Your task to perform on an android device: Do I have any events this weekend? Image 0: 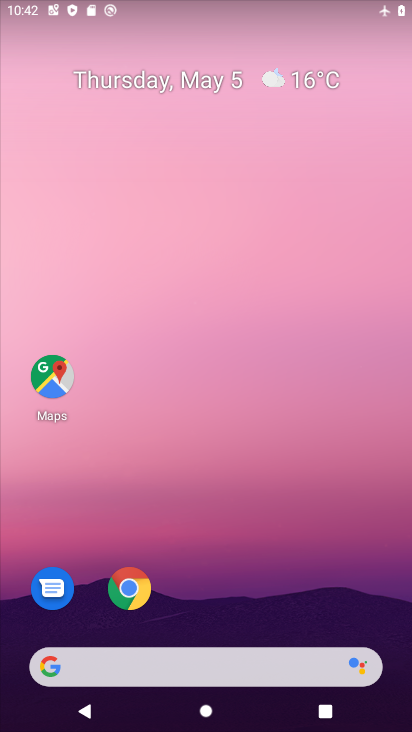
Step 0: drag from (221, 616) to (186, 230)
Your task to perform on an android device: Do I have any events this weekend? Image 1: 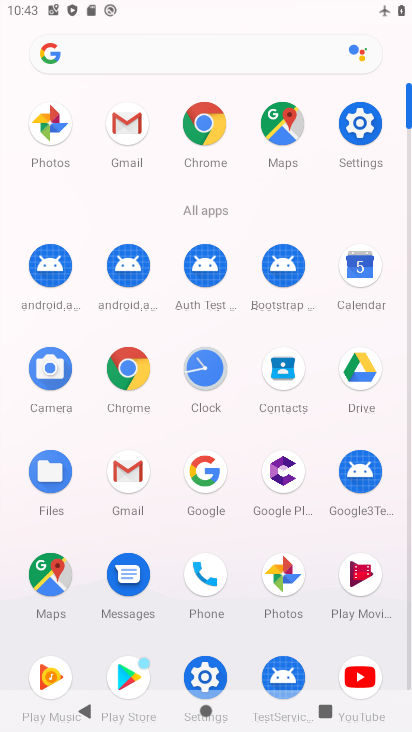
Step 1: click (357, 273)
Your task to perform on an android device: Do I have any events this weekend? Image 2: 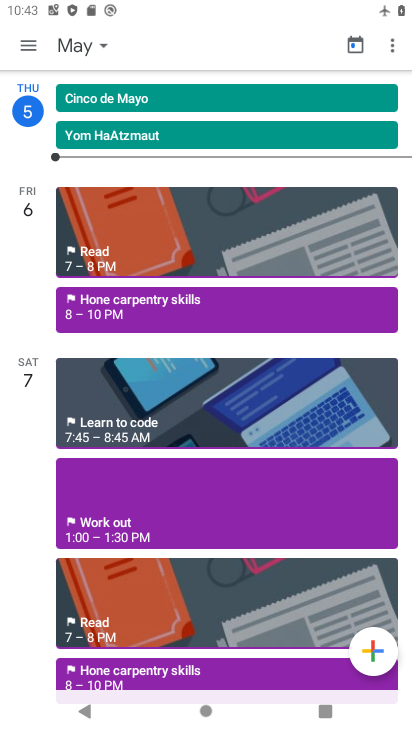
Step 2: click (25, 38)
Your task to perform on an android device: Do I have any events this weekend? Image 3: 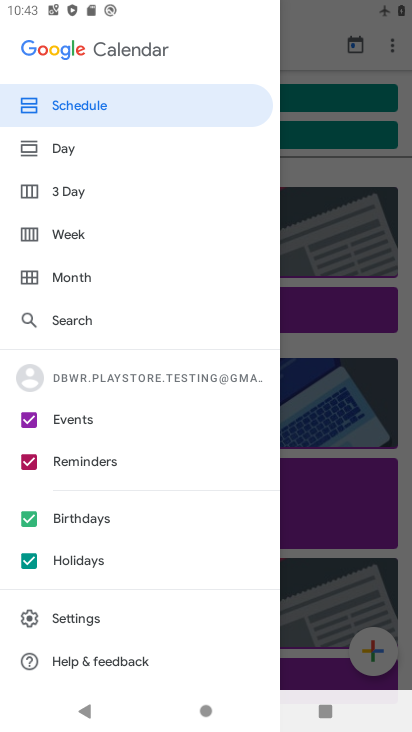
Step 3: click (33, 563)
Your task to perform on an android device: Do I have any events this weekend? Image 4: 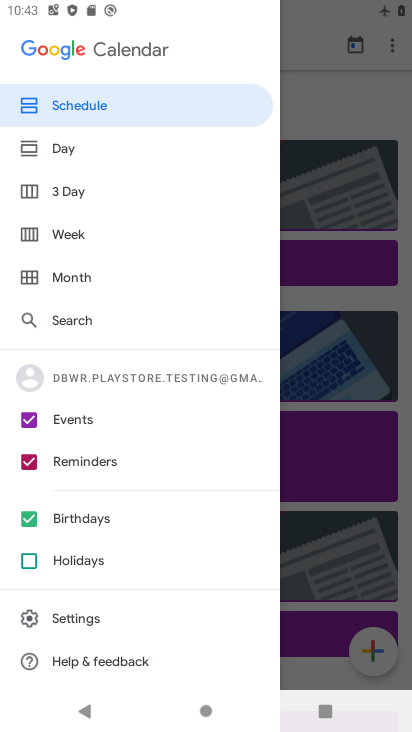
Step 4: click (25, 516)
Your task to perform on an android device: Do I have any events this weekend? Image 5: 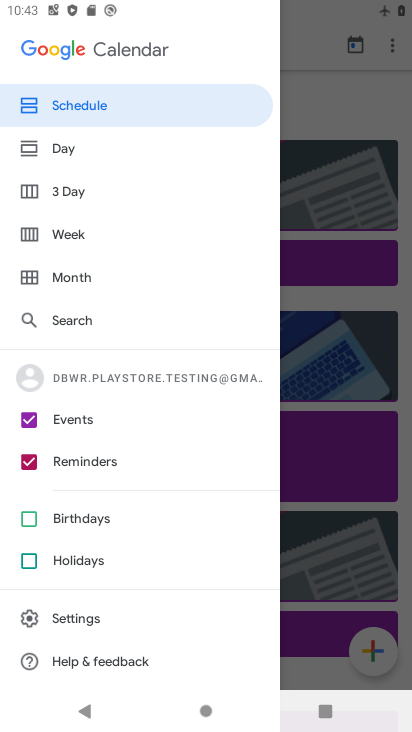
Step 5: click (28, 464)
Your task to perform on an android device: Do I have any events this weekend? Image 6: 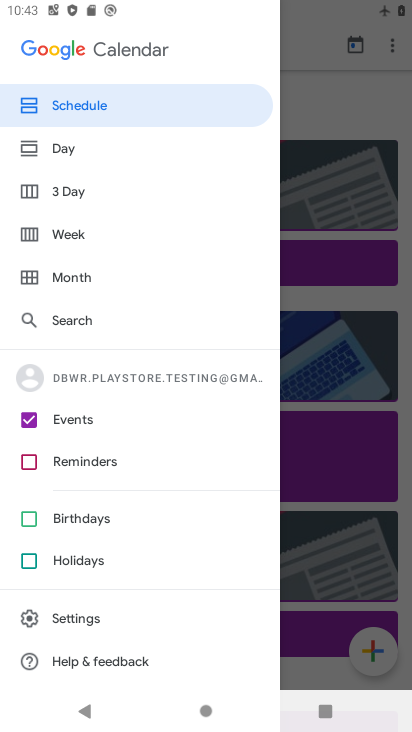
Step 6: click (76, 187)
Your task to perform on an android device: Do I have any events this weekend? Image 7: 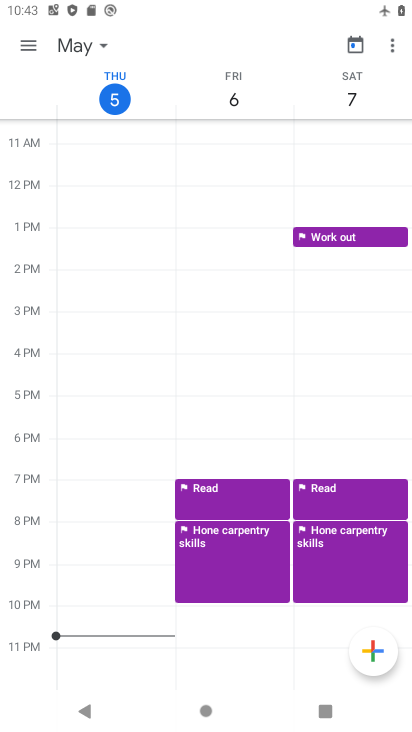
Step 7: task complete